Your task to perform on an android device: toggle notifications settings in the gmail app Image 0: 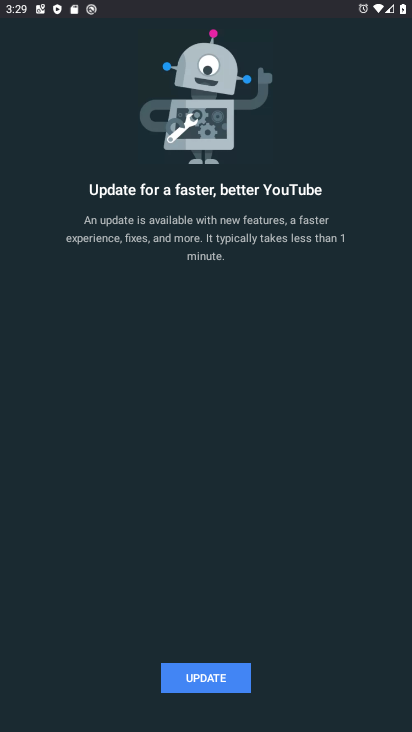
Step 0: press home button
Your task to perform on an android device: toggle notifications settings in the gmail app Image 1: 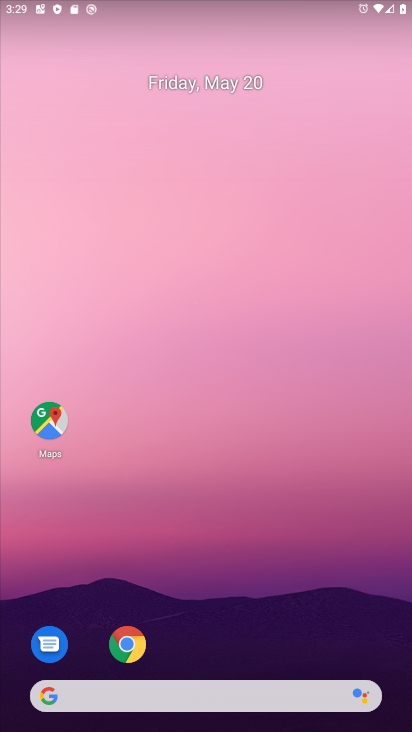
Step 1: drag from (236, 630) to (195, 102)
Your task to perform on an android device: toggle notifications settings in the gmail app Image 2: 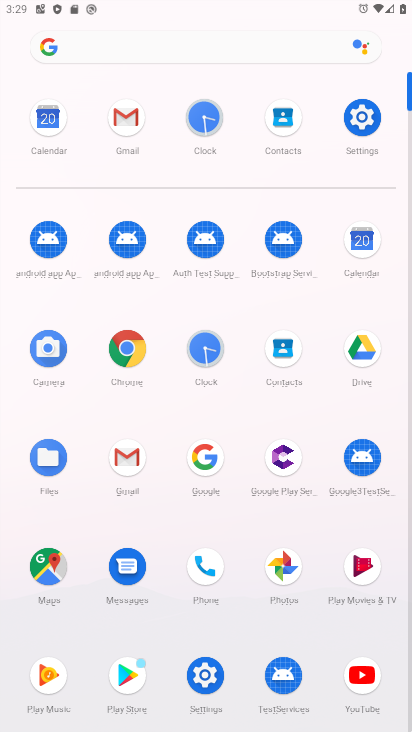
Step 2: click (130, 151)
Your task to perform on an android device: toggle notifications settings in the gmail app Image 3: 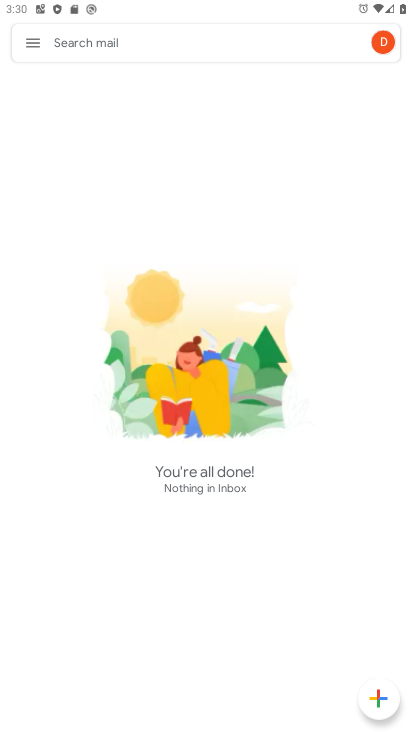
Step 3: click (21, 49)
Your task to perform on an android device: toggle notifications settings in the gmail app Image 4: 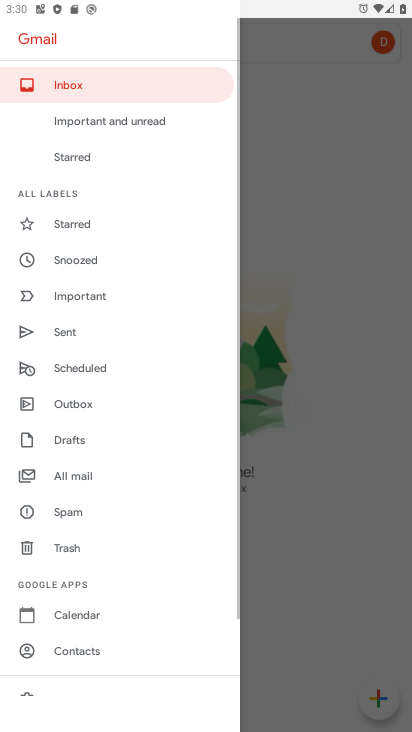
Step 4: drag from (65, 605) to (42, 452)
Your task to perform on an android device: toggle notifications settings in the gmail app Image 5: 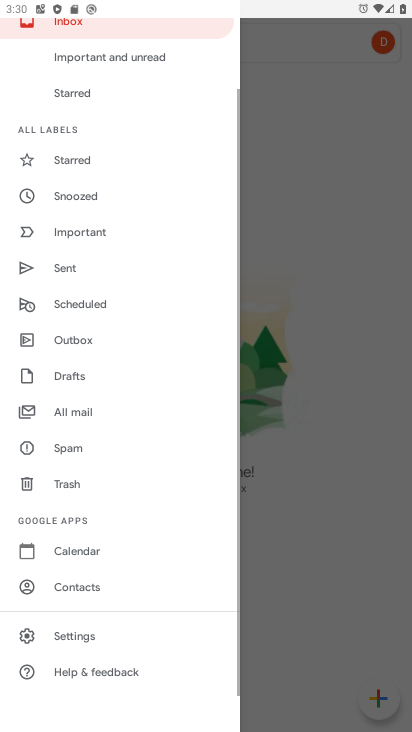
Step 5: click (62, 632)
Your task to perform on an android device: toggle notifications settings in the gmail app Image 6: 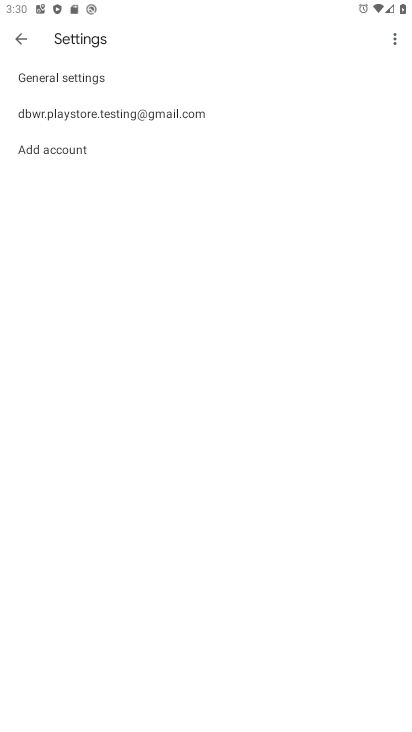
Step 6: click (103, 77)
Your task to perform on an android device: toggle notifications settings in the gmail app Image 7: 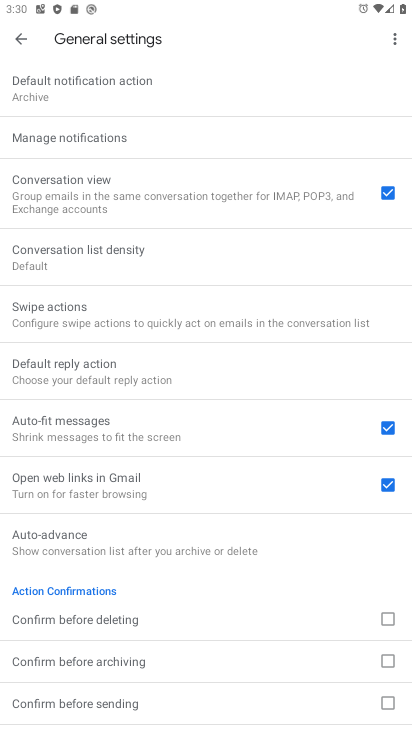
Step 7: click (68, 135)
Your task to perform on an android device: toggle notifications settings in the gmail app Image 8: 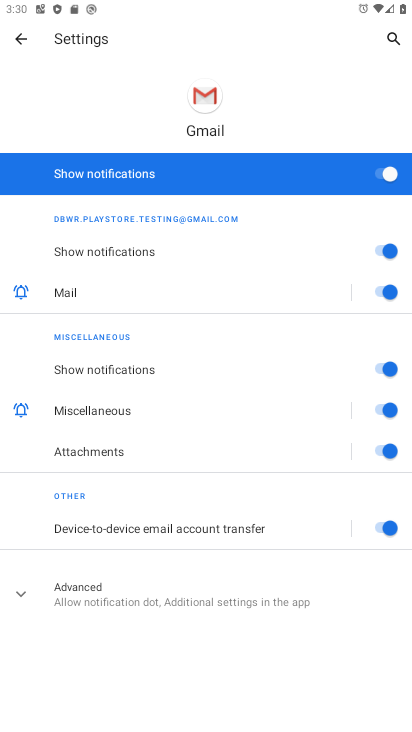
Step 8: click (68, 163)
Your task to perform on an android device: toggle notifications settings in the gmail app Image 9: 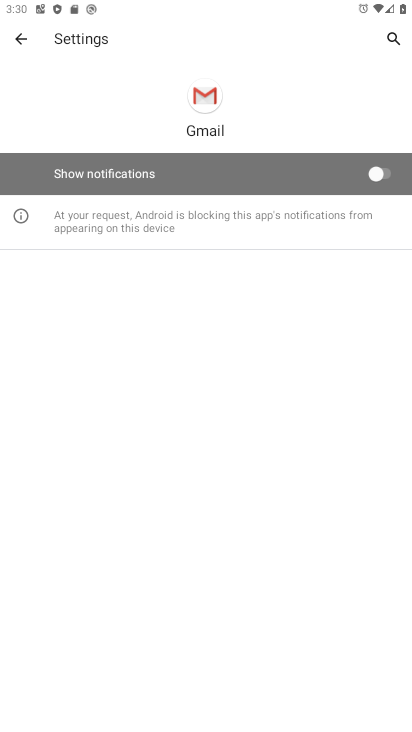
Step 9: task complete